Your task to perform on an android device: What's on Reddit this week Image 0: 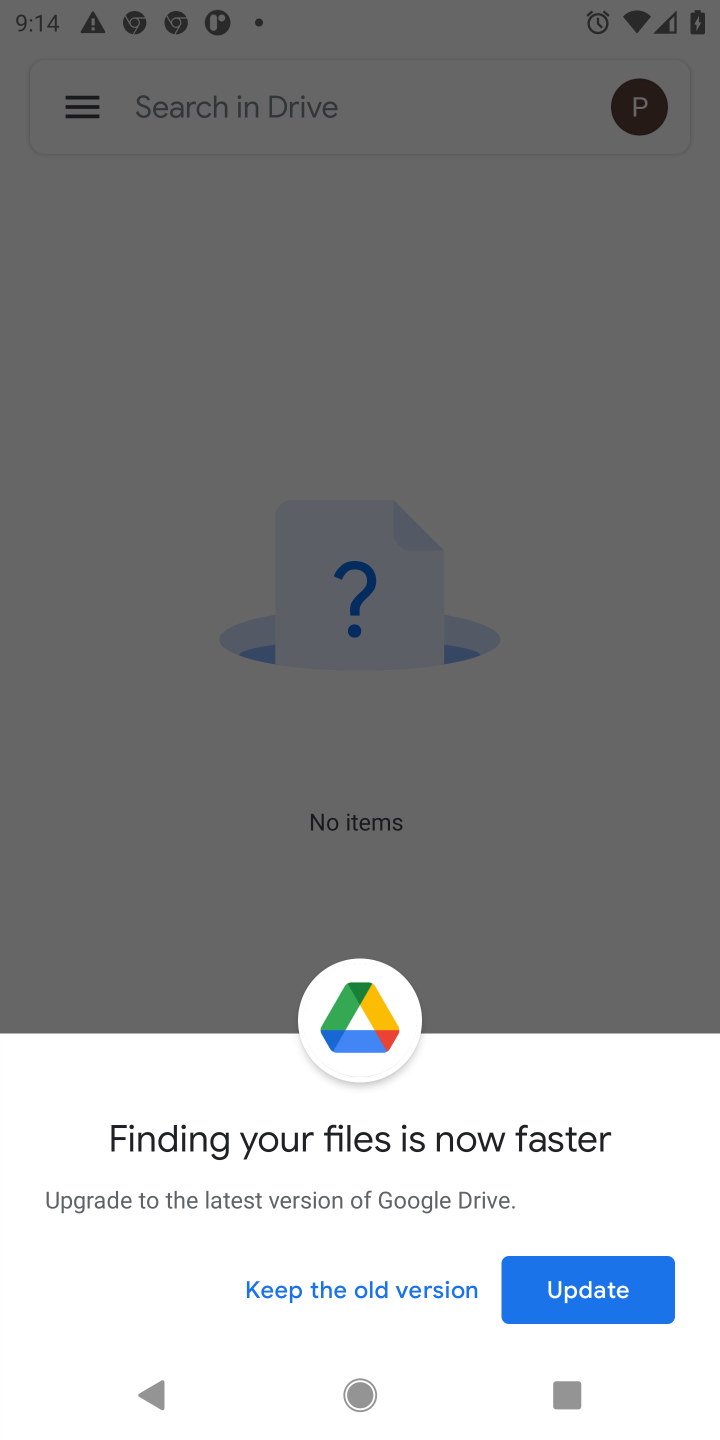
Step 0: press home button
Your task to perform on an android device: What's on Reddit this week Image 1: 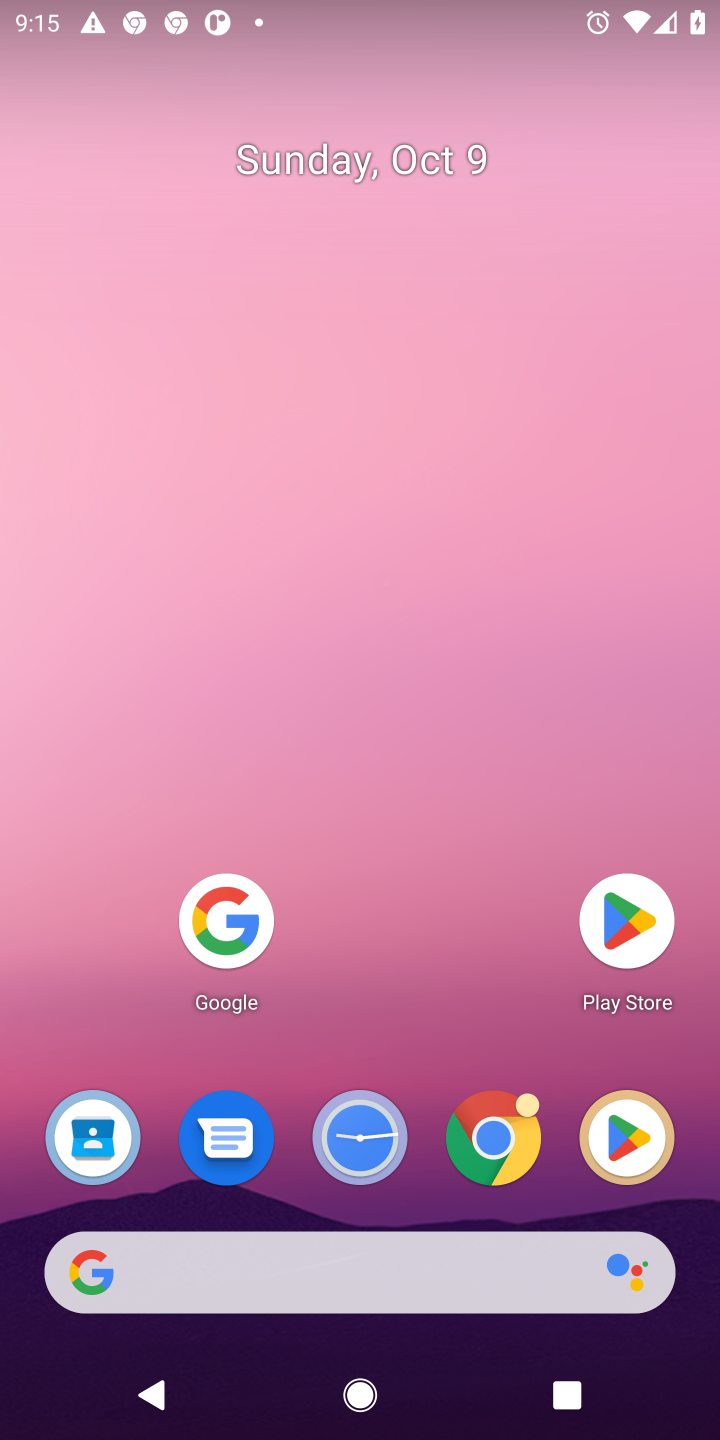
Step 1: click (234, 917)
Your task to perform on an android device: What's on Reddit this week Image 2: 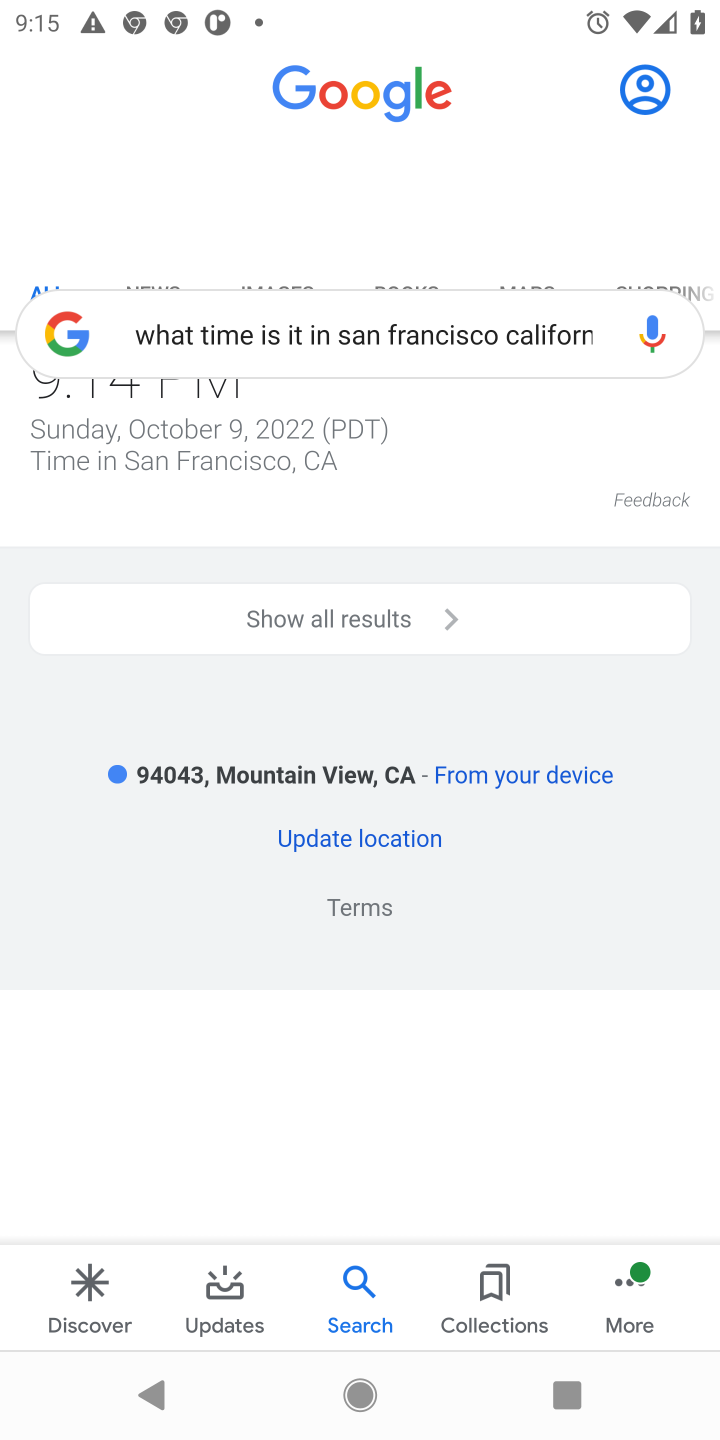
Step 2: click (341, 319)
Your task to perform on an android device: What's on Reddit this week Image 3: 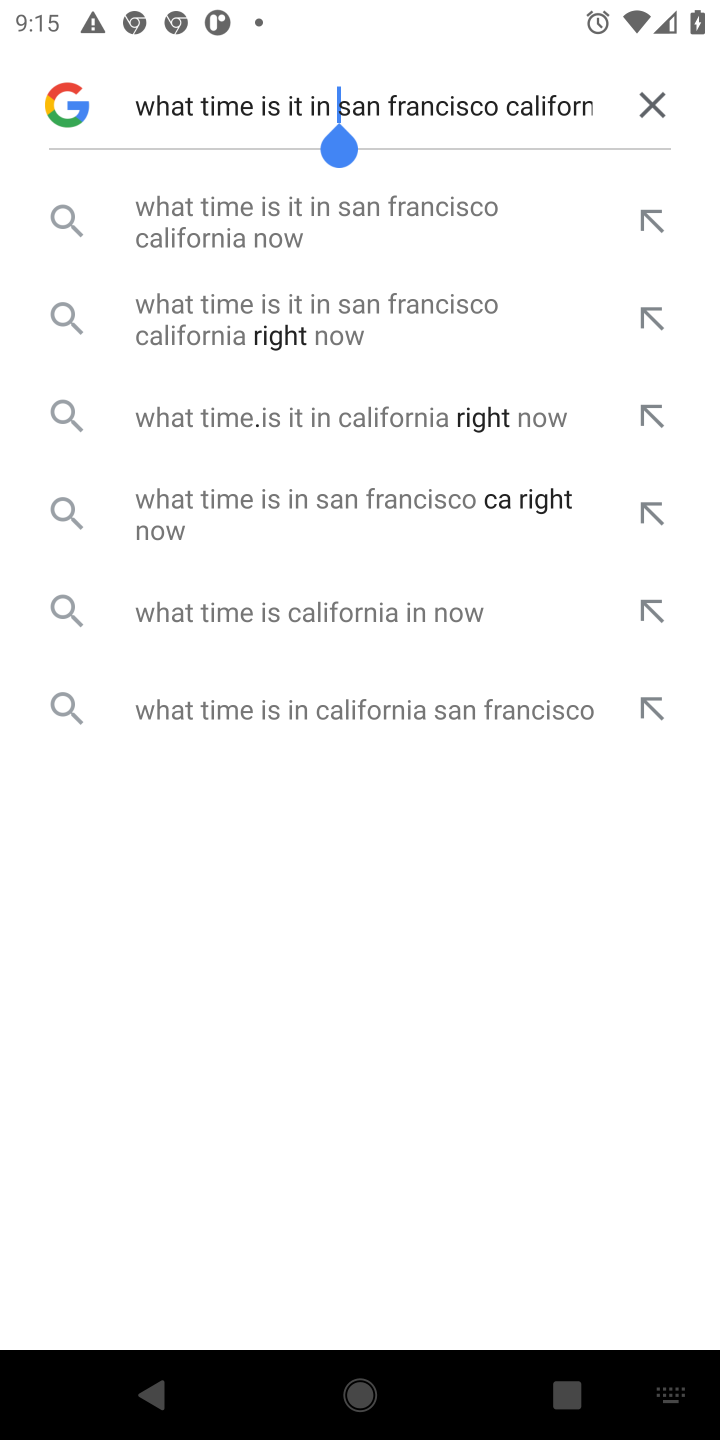
Step 3: click (647, 100)
Your task to perform on an android device: What's on Reddit this week Image 4: 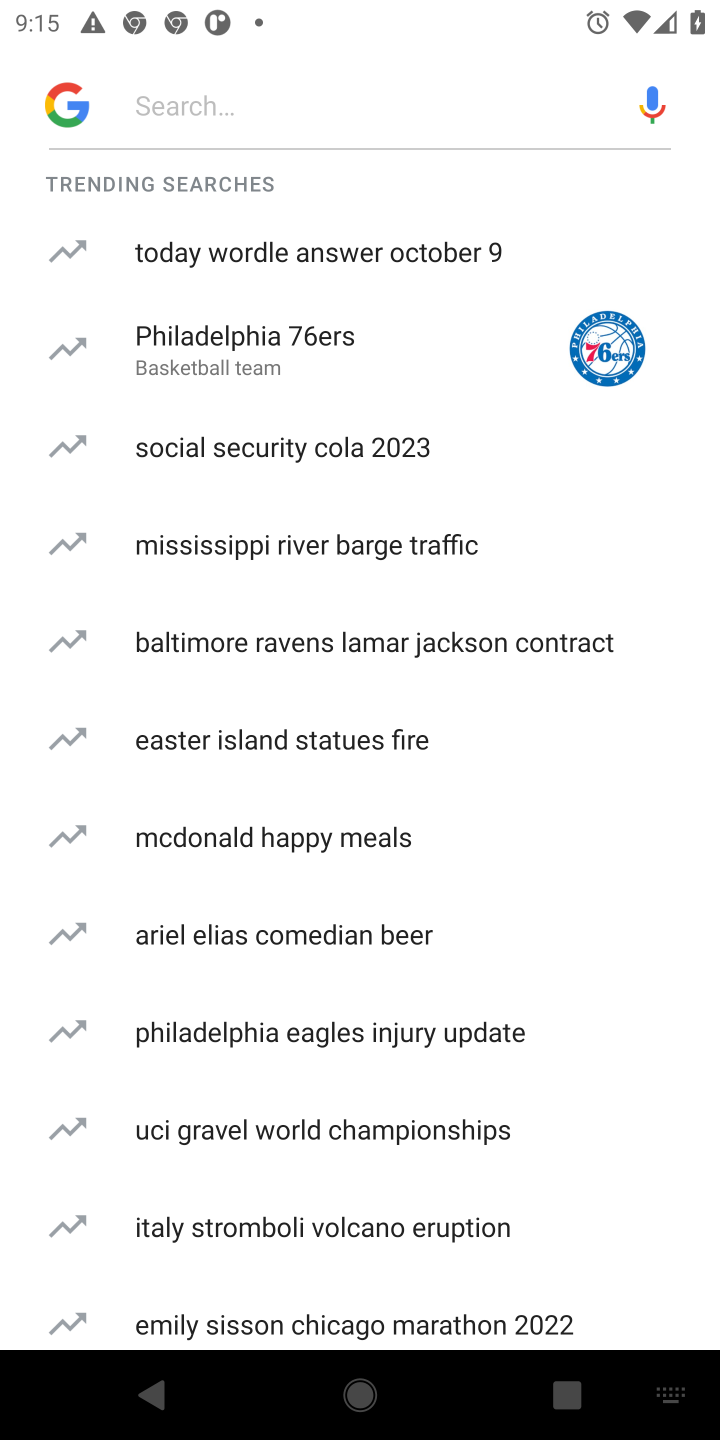
Step 4: click (287, 126)
Your task to perform on an android device: What's on Reddit this week Image 5: 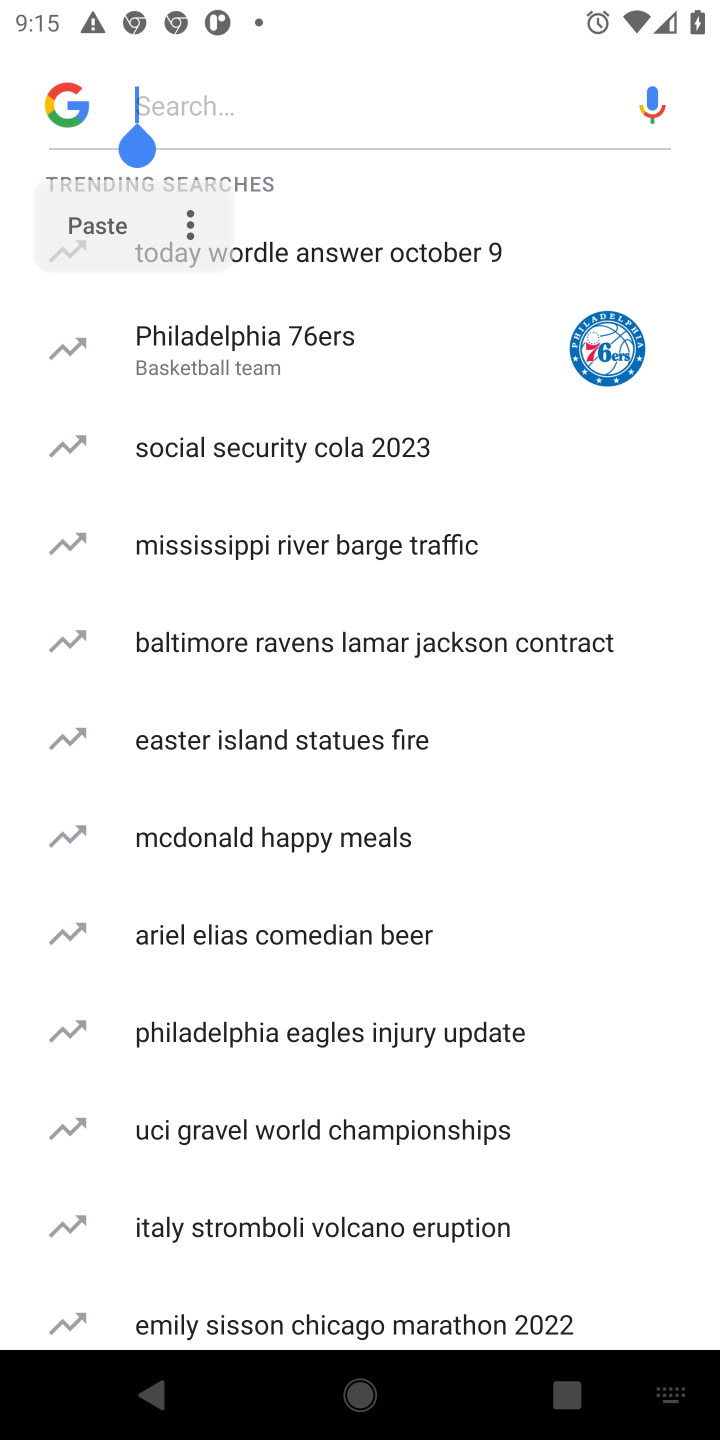
Step 5: click (278, 98)
Your task to perform on an android device: What's on Reddit this week Image 6: 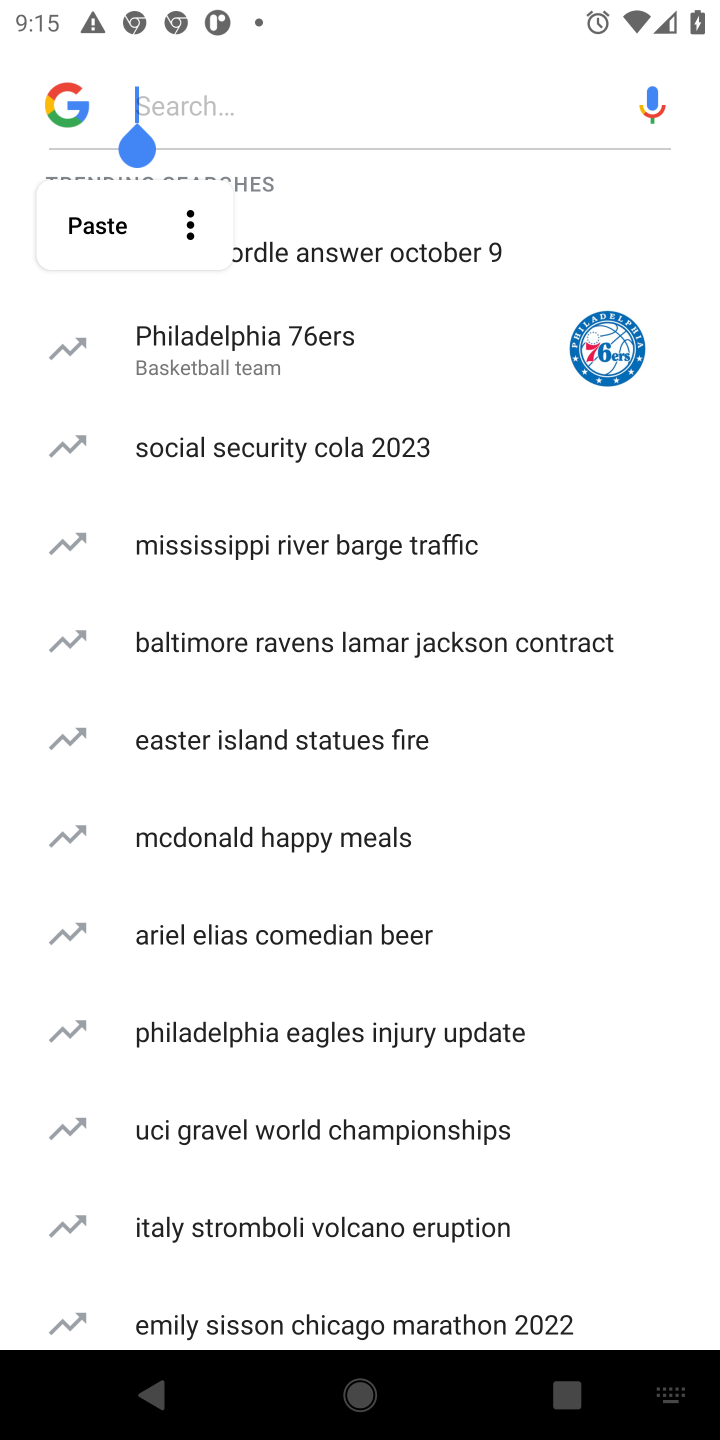
Step 6: type "What's on Reddit this week "
Your task to perform on an android device: What's on Reddit this week Image 7: 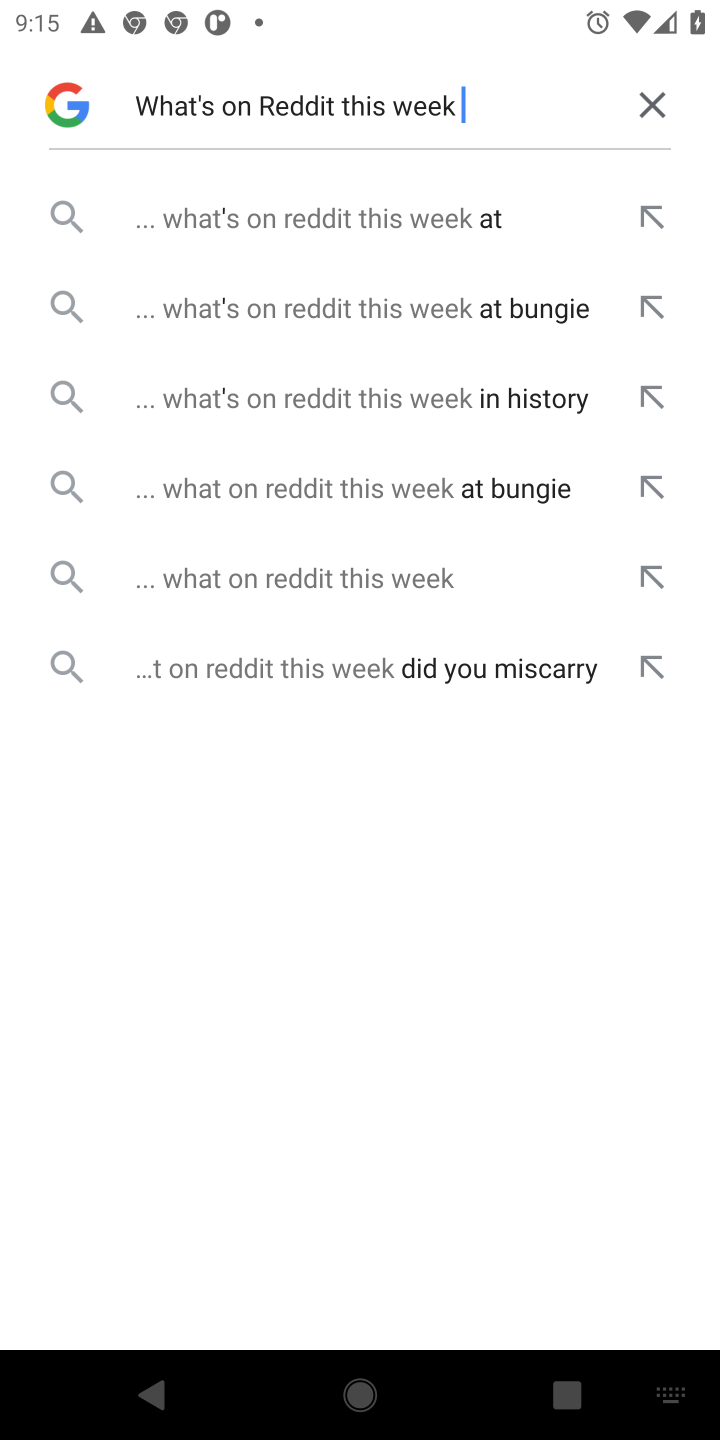
Step 7: click (378, 217)
Your task to perform on an android device: What's on Reddit this week Image 8: 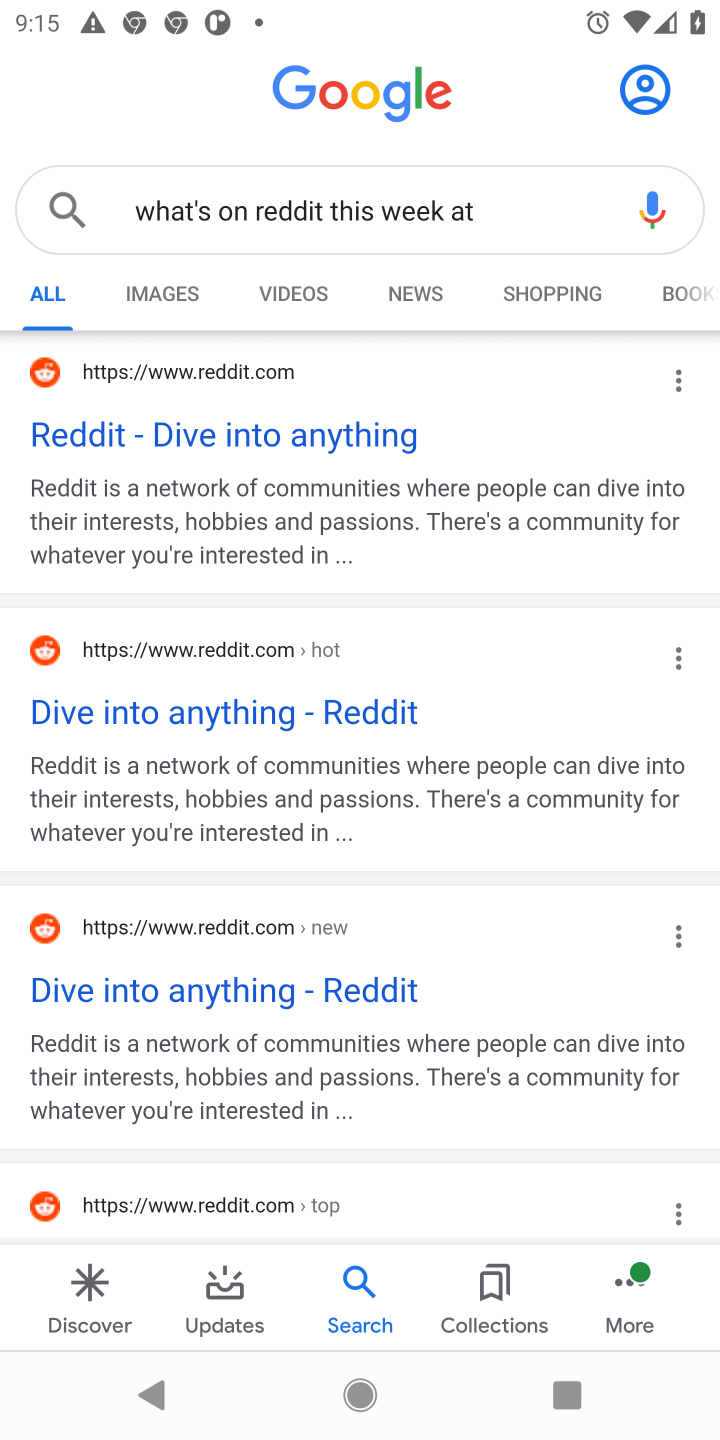
Step 8: click (213, 435)
Your task to perform on an android device: What's on Reddit this week Image 9: 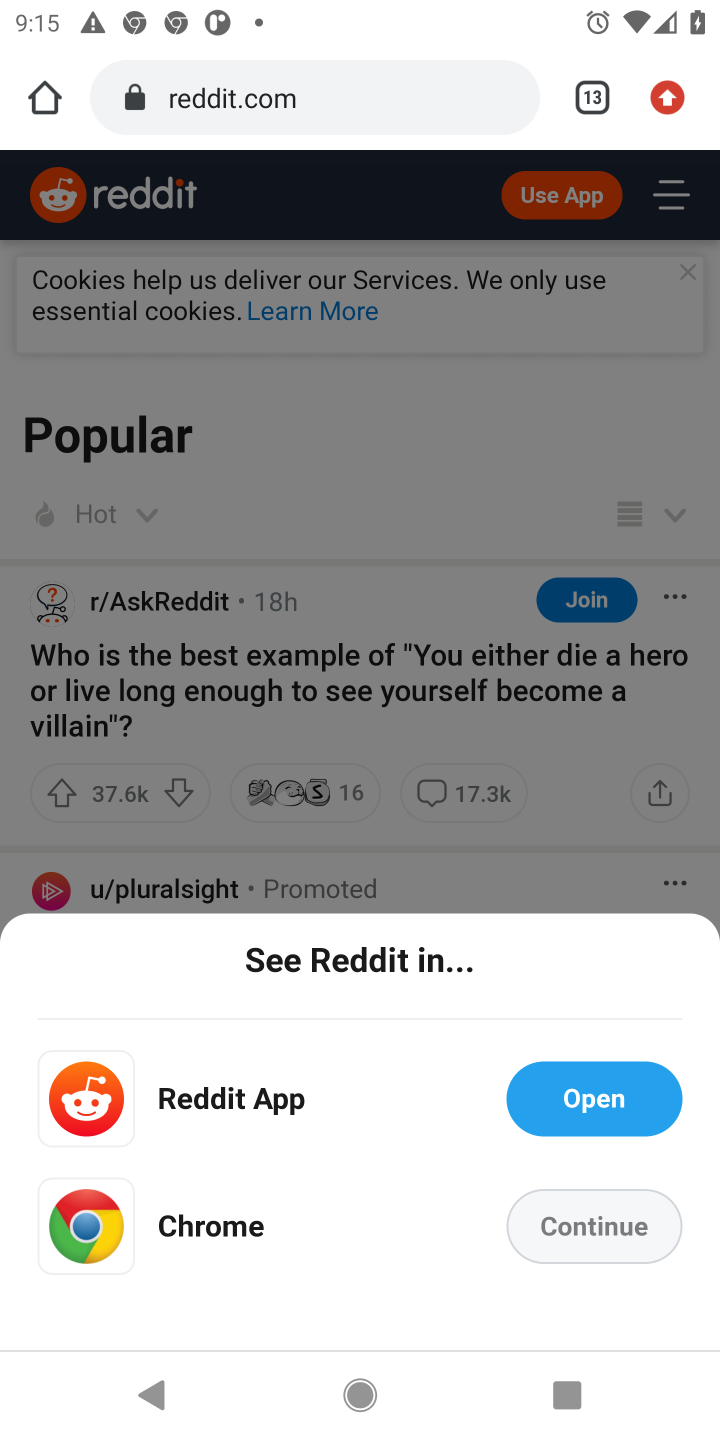
Step 9: task complete